Your task to perform on an android device: change the clock display to analog Image 0: 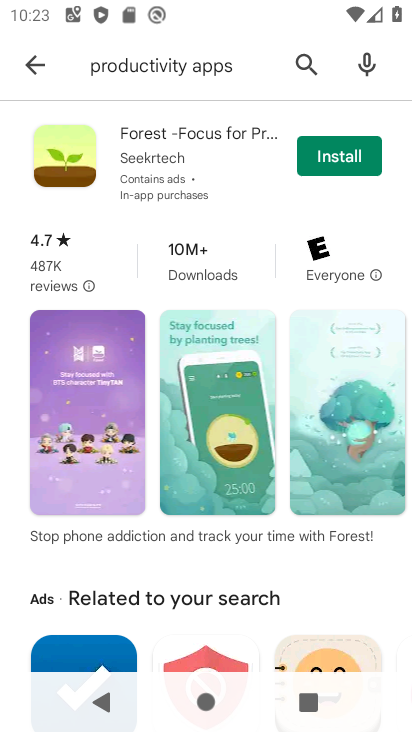
Step 0: press home button
Your task to perform on an android device: change the clock display to analog Image 1: 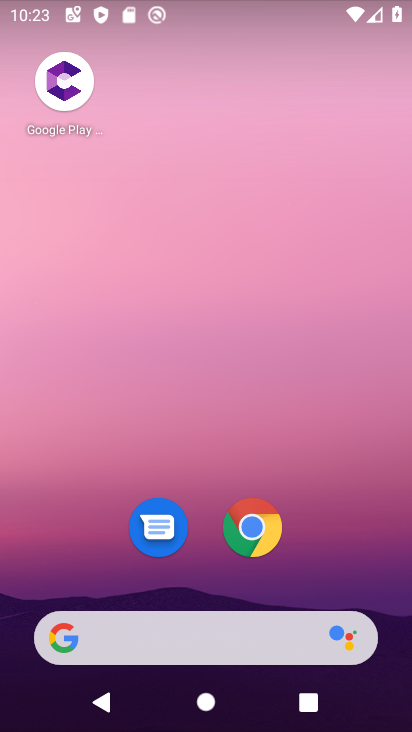
Step 1: drag from (362, 517) to (107, 4)
Your task to perform on an android device: change the clock display to analog Image 2: 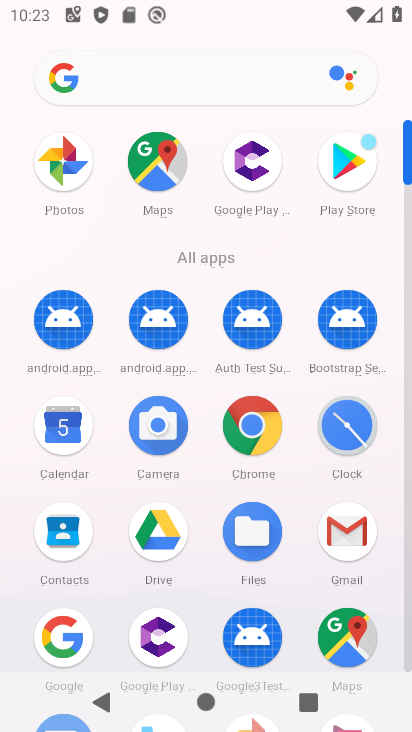
Step 2: click (368, 430)
Your task to perform on an android device: change the clock display to analog Image 3: 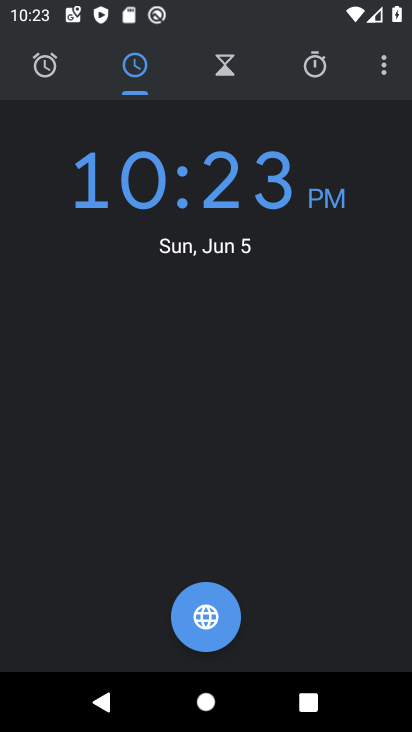
Step 3: click (379, 65)
Your task to perform on an android device: change the clock display to analog Image 4: 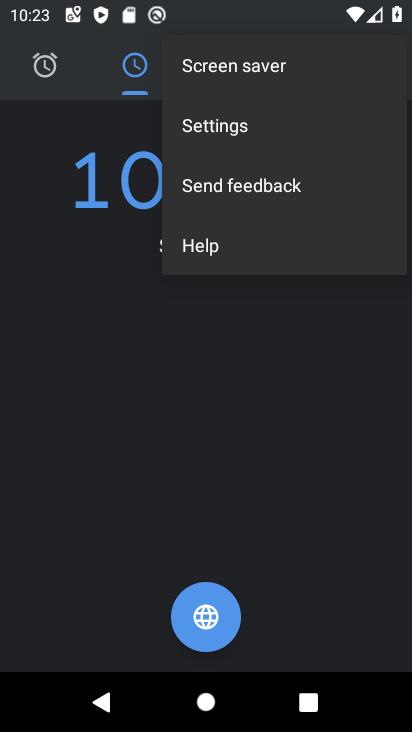
Step 4: click (221, 134)
Your task to perform on an android device: change the clock display to analog Image 5: 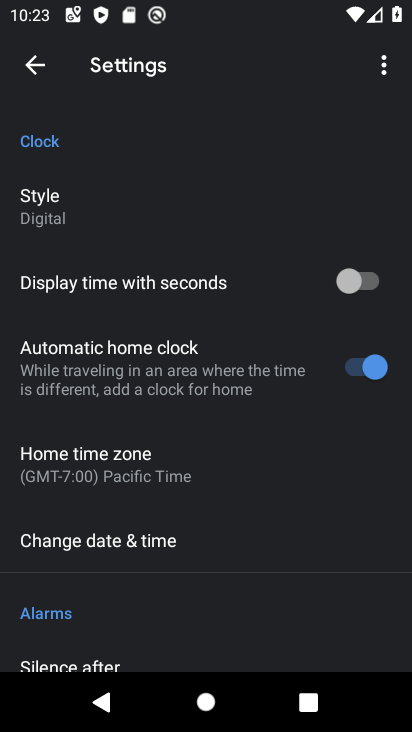
Step 5: click (159, 211)
Your task to perform on an android device: change the clock display to analog Image 6: 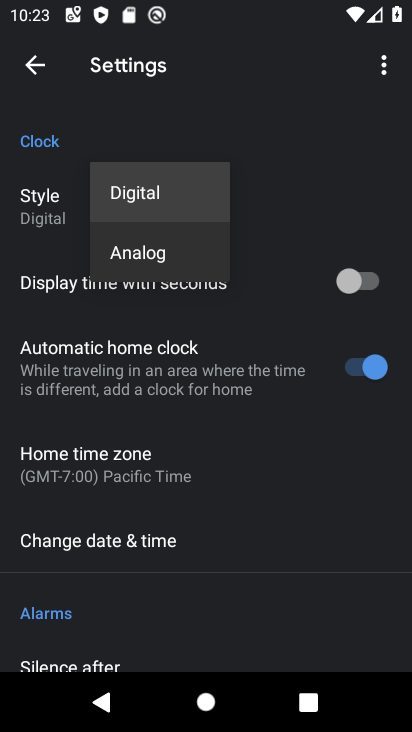
Step 6: click (175, 250)
Your task to perform on an android device: change the clock display to analog Image 7: 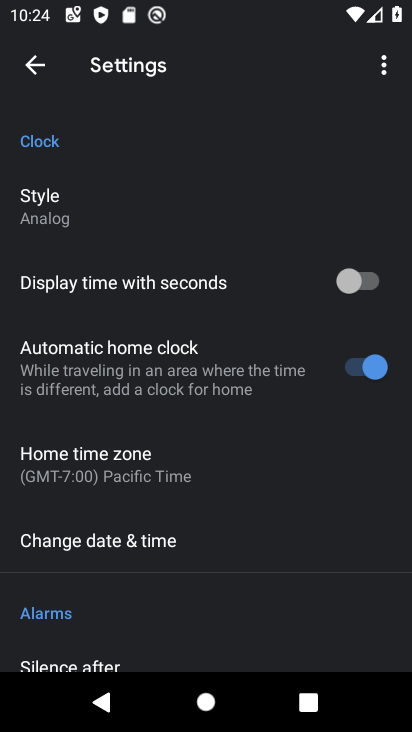
Step 7: task complete